Your task to perform on an android device: turn on javascript in the chrome app Image 0: 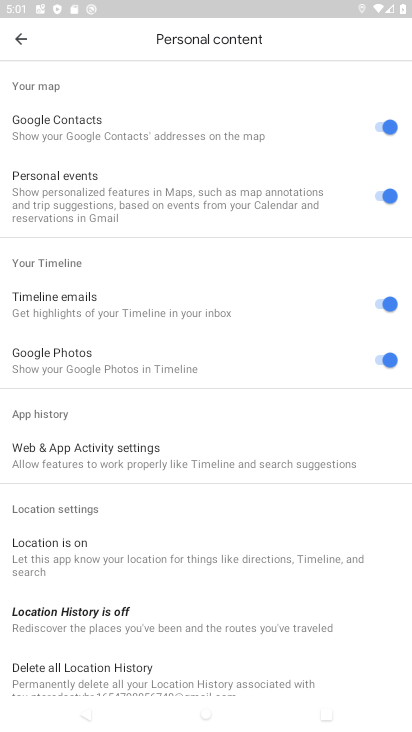
Step 0: press home button
Your task to perform on an android device: turn on javascript in the chrome app Image 1: 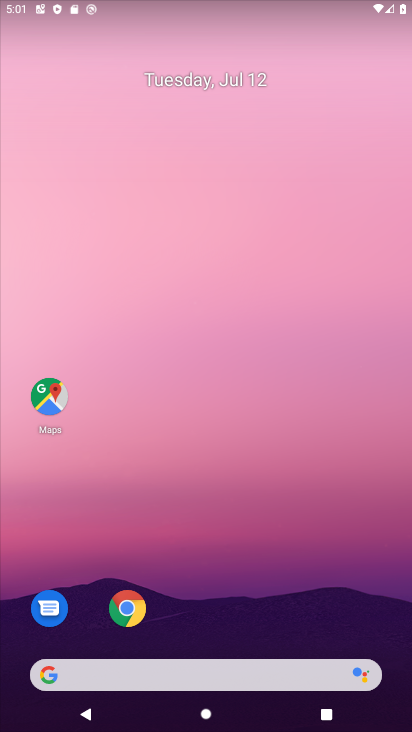
Step 1: click (134, 612)
Your task to perform on an android device: turn on javascript in the chrome app Image 2: 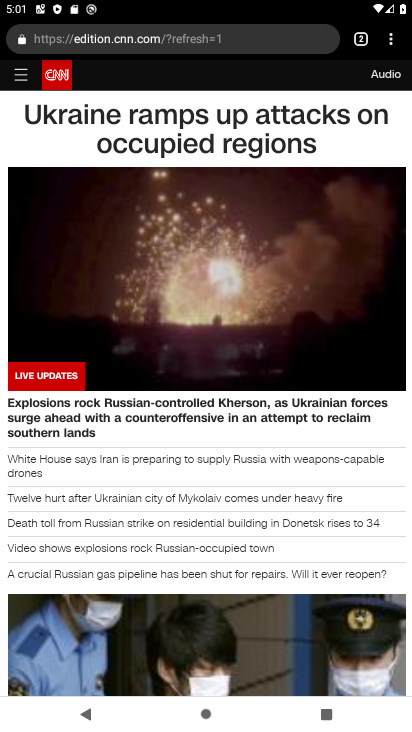
Step 2: click (404, 35)
Your task to perform on an android device: turn on javascript in the chrome app Image 3: 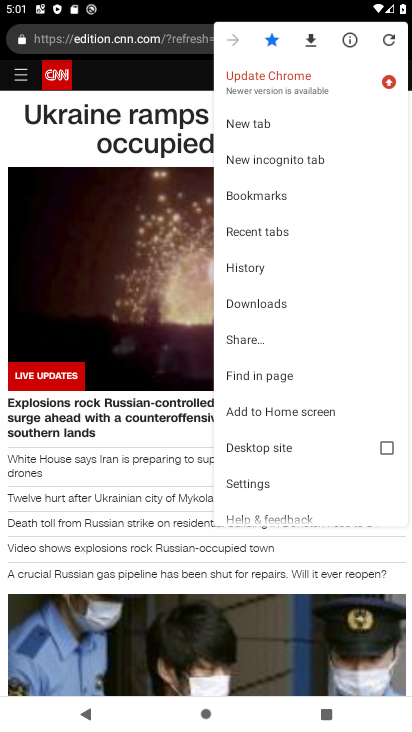
Step 3: click (232, 492)
Your task to perform on an android device: turn on javascript in the chrome app Image 4: 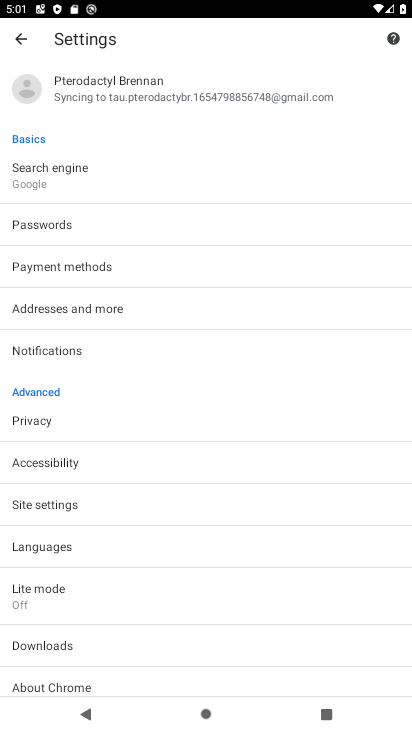
Step 4: drag from (91, 640) to (151, 285)
Your task to perform on an android device: turn on javascript in the chrome app Image 5: 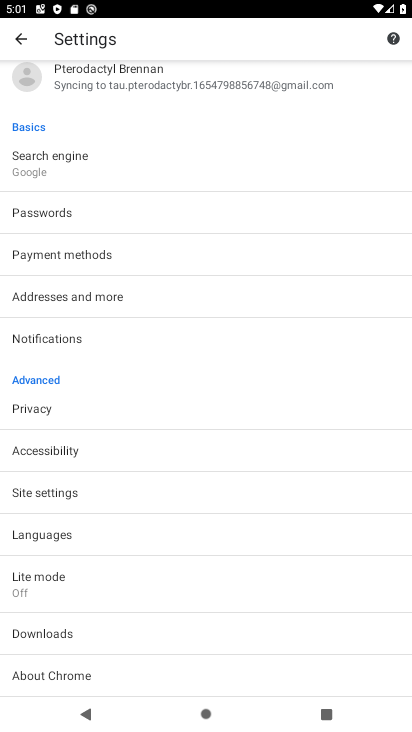
Step 5: click (151, 494)
Your task to perform on an android device: turn on javascript in the chrome app Image 6: 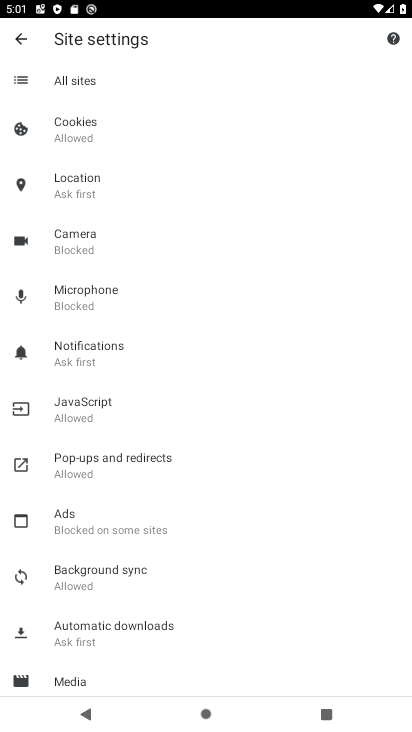
Step 6: click (98, 419)
Your task to perform on an android device: turn on javascript in the chrome app Image 7: 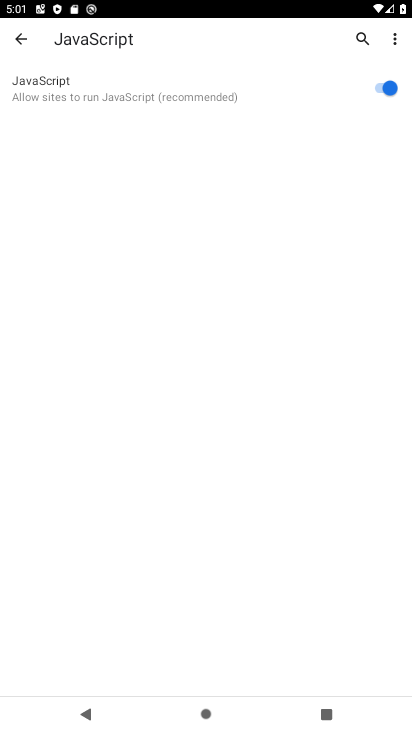
Step 7: task complete